Your task to perform on an android device: move a message to another label in the gmail app Image 0: 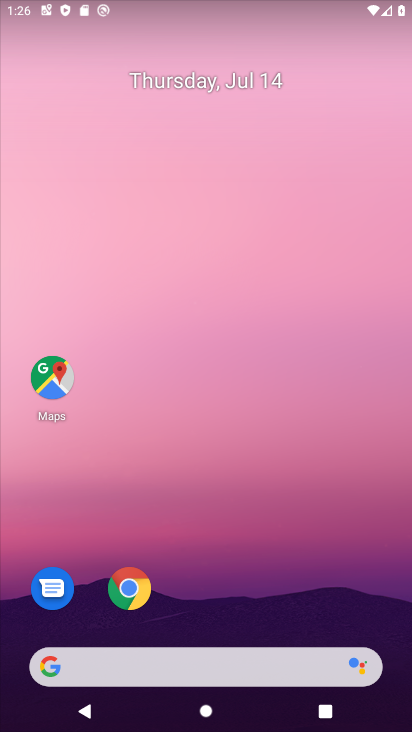
Step 0: drag from (272, 567) to (320, 4)
Your task to perform on an android device: move a message to another label in the gmail app Image 1: 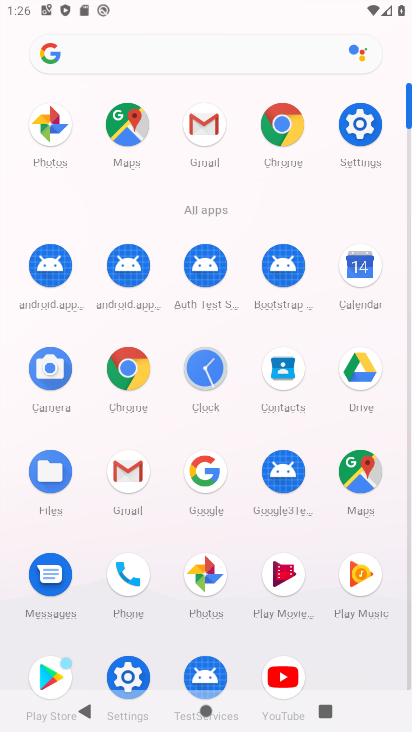
Step 1: click (212, 133)
Your task to perform on an android device: move a message to another label in the gmail app Image 2: 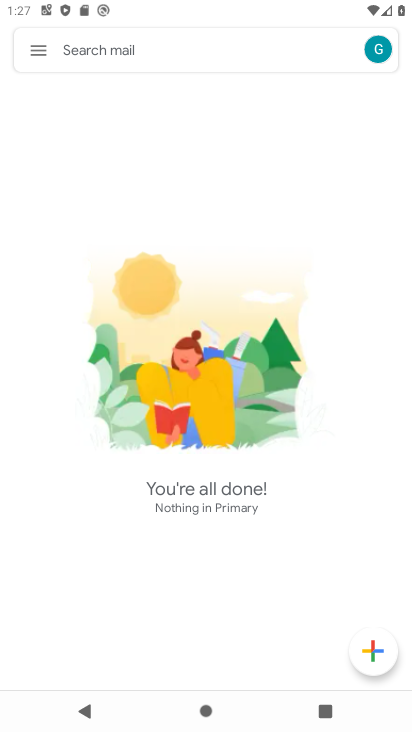
Step 2: click (37, 46)
Your task to perform on an android device: move a message to another label in the gmail app Image 3: 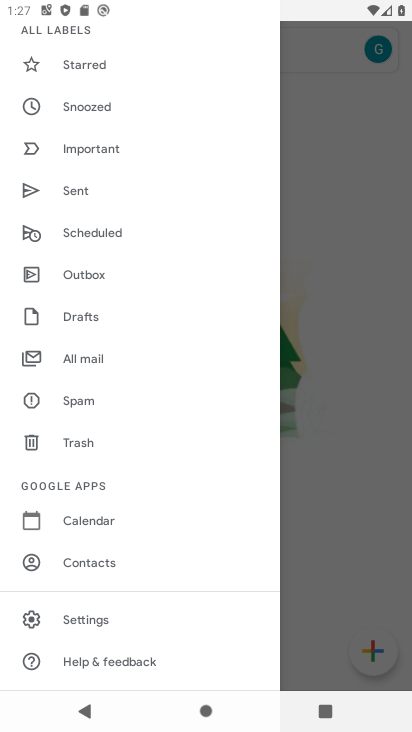
Step 3: click (96, 355)
Your task to perform on an android device: move a message to another label in the gmail app Image 4: 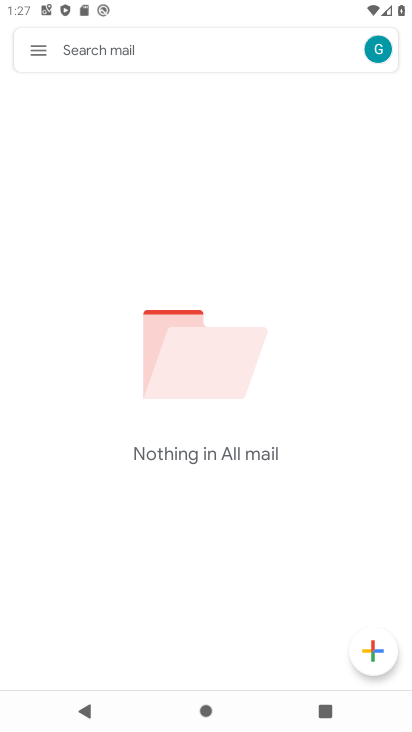
Step 4: task complete